Your task to perform on an android device: turn vacation reply on in the gmail app Image 0: 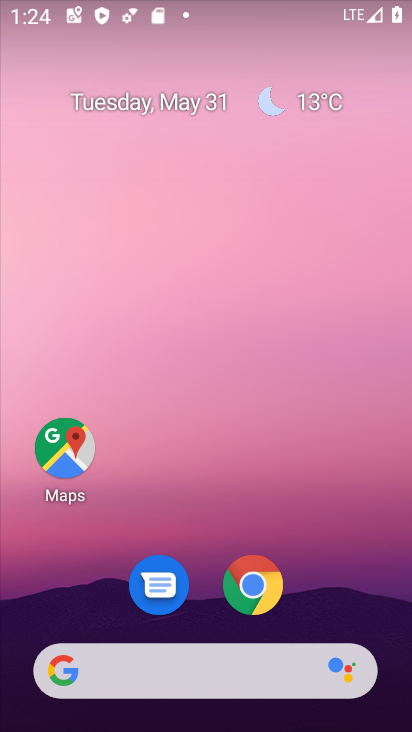
Step 0: drag from (237, 510) to (241, 2)
Your task to perform on an android device: turn vacation reply on in the gmail app Image 1: 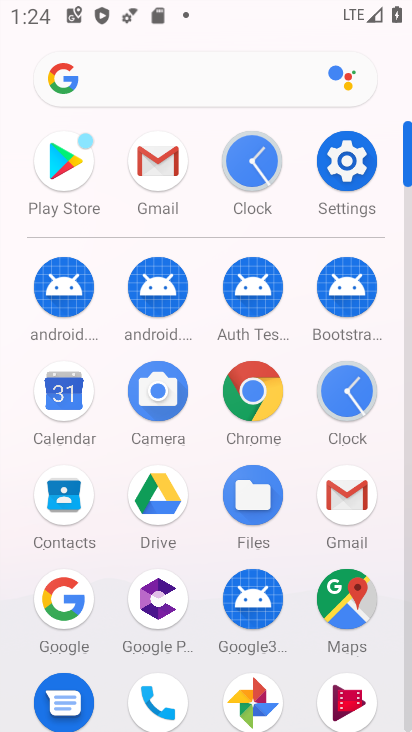
Step 1: click (333, 490)
Your task to perform on an android device: turn vacation reply on in the gmail app Image 2: 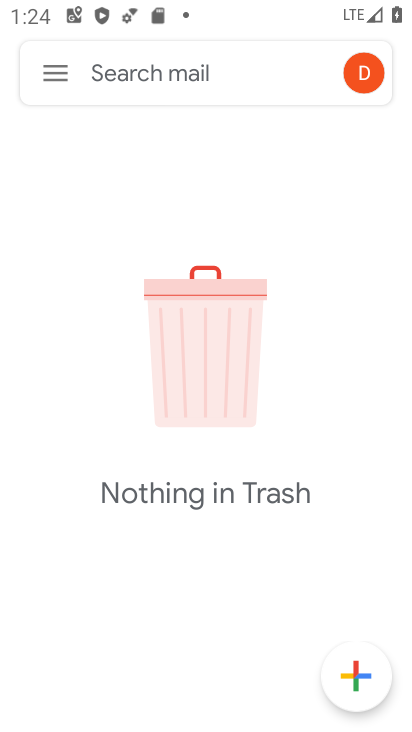
Step 2: click (60, 75)
Your task to perform on an android device: turn vacation reply on in the gmail app Image 3: 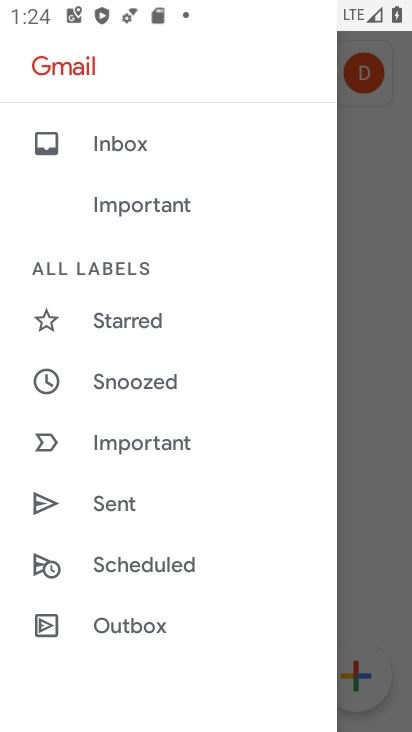
Step 3: drag from (180, 478) to (244, 3)
Your task to perform on an android device: turn vacation reply on in the gmail app Image 4: 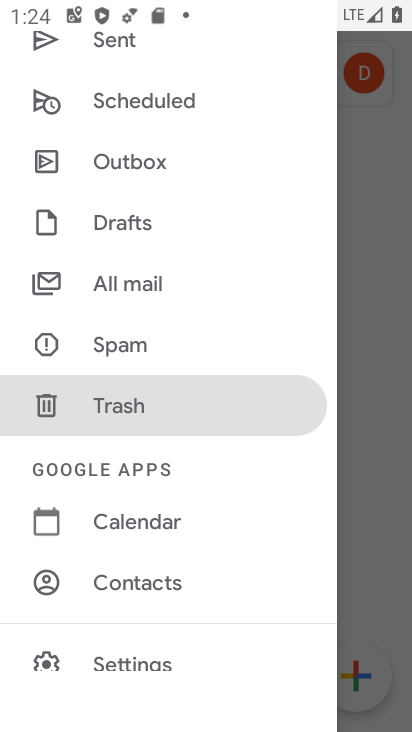
Step 4: click (154, 651)
Your task to perform on an android device: turn vacation reply on in the gmail app Image 5: 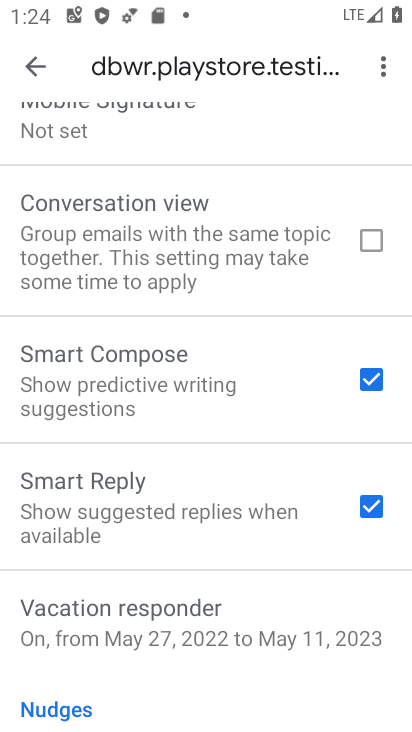
Step 5: drag from (230, 483) to (259, 290)
Your task to perform on an android device: turn vacation reply on in the gmail app Image 6: 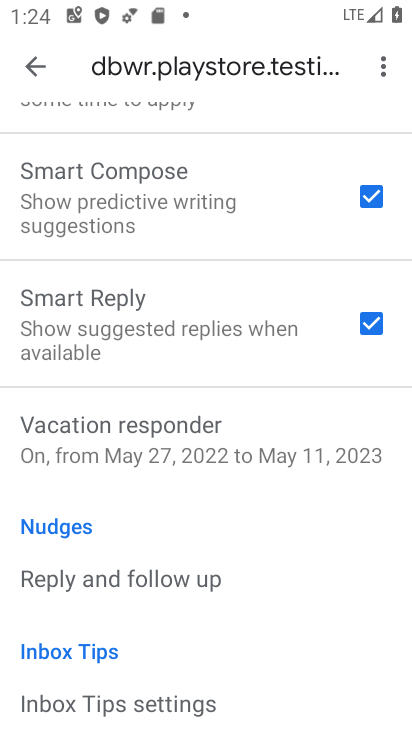
Step 6: click (253, 430)
Your task to perform on an android device: turn vacation reply on in the gmail app Image 7: 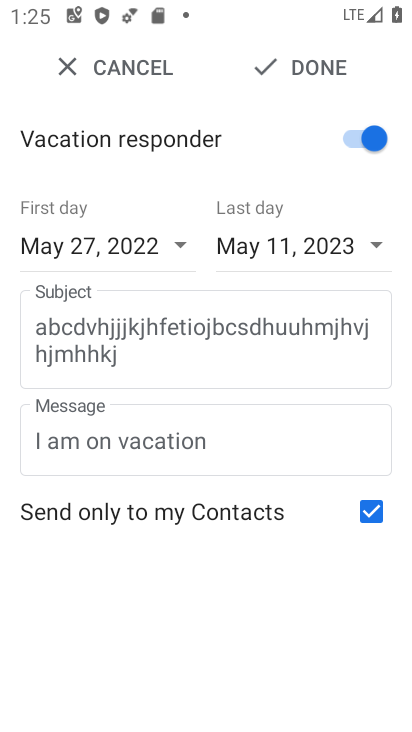
Step 7: task complete